Your task to perform on an android device: choose inbox layout in the gmail app Image 0: 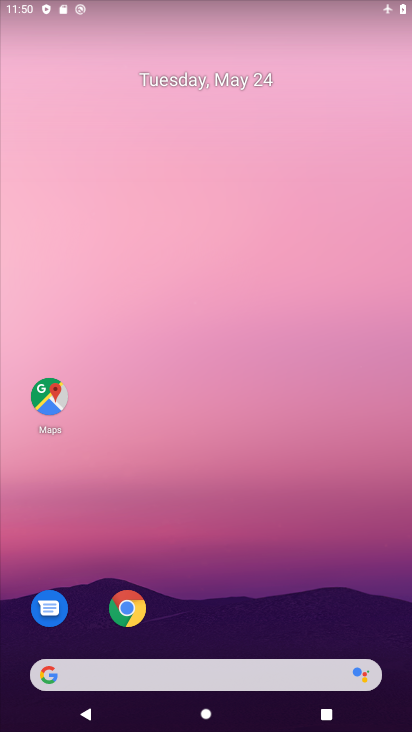
Step 0: click (279, 595)
Your task to perform on an android device: choose inbox layout in the gmail app Image 1: 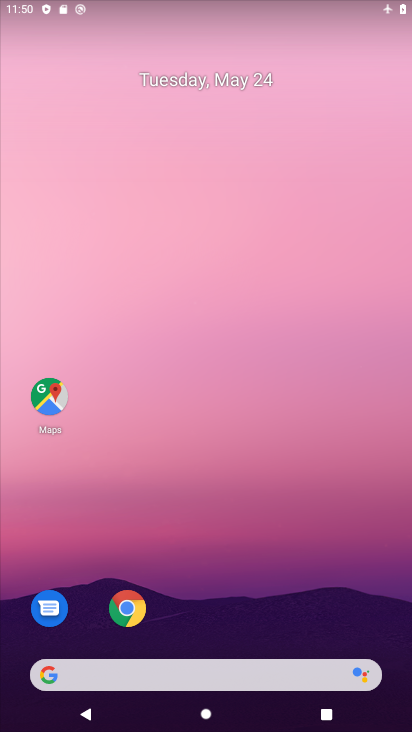
Step 1: click (279, 595)
Your task to perform on an android device: choose inbox layout in the gmail app Image 2: 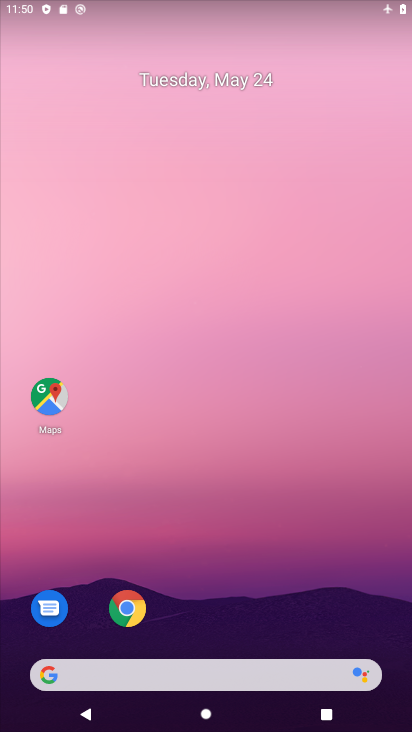
Step 2: drag from (279, 595) to (230, 174)
Your task to perform on an android device: choose inbox layout in the gmail app Image 3: 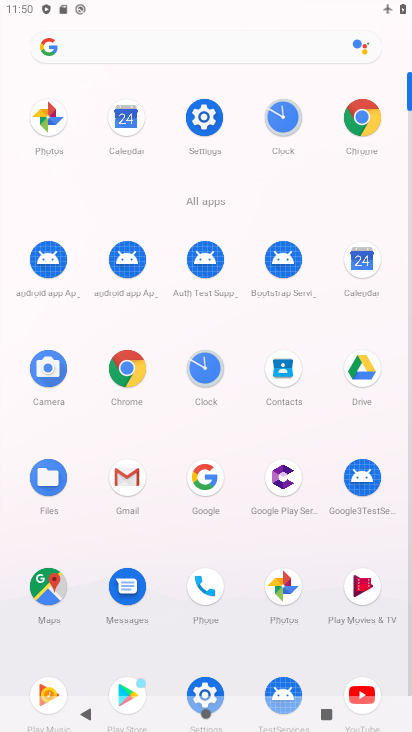
Step 3: click (142, 496)
Your task to perform on an android device: choose inbox layout in the gmail app Image 4: 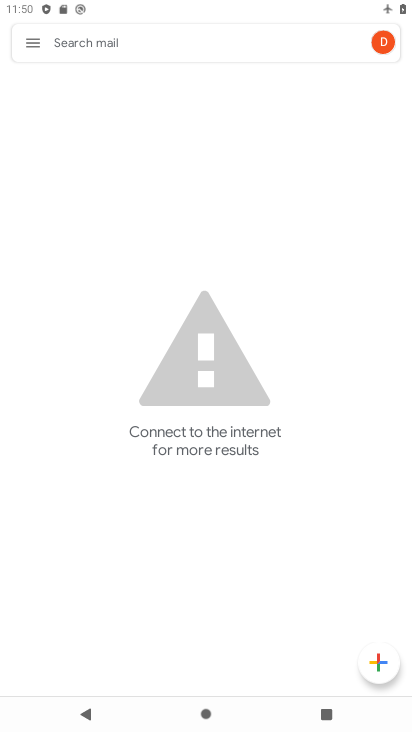
Step 4: click (45, 51)
Your task to perform on an android device: choose inbox layout in the gmail app Image 5: 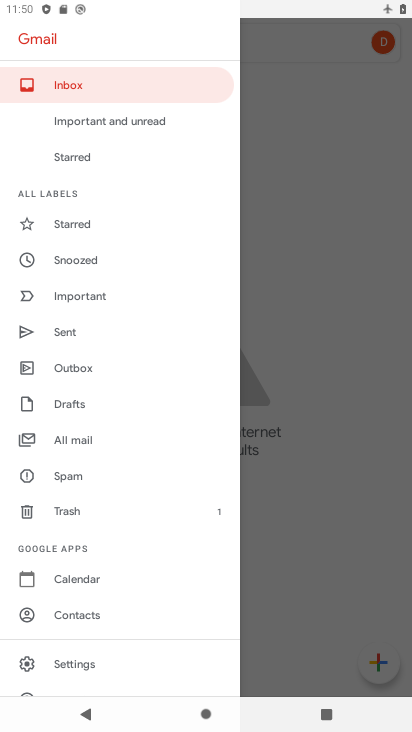
Step 5: click (116, 86)
Your task to perform on an android device: choose inbox layout in the gmail app Image 6: 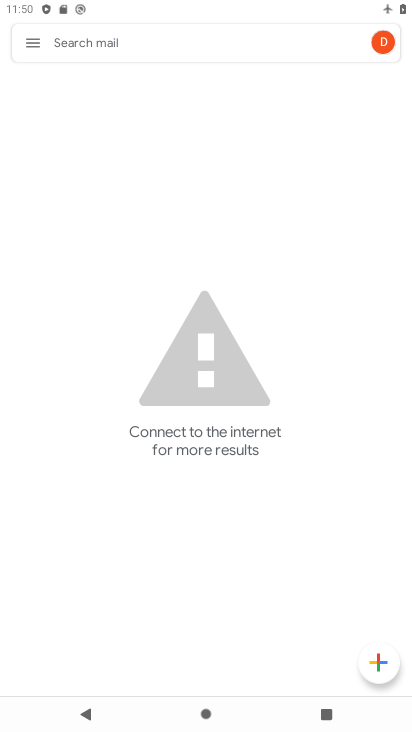
Step 6: task complete